Your task to perform on an android device: turn on airplane mode Image 0: 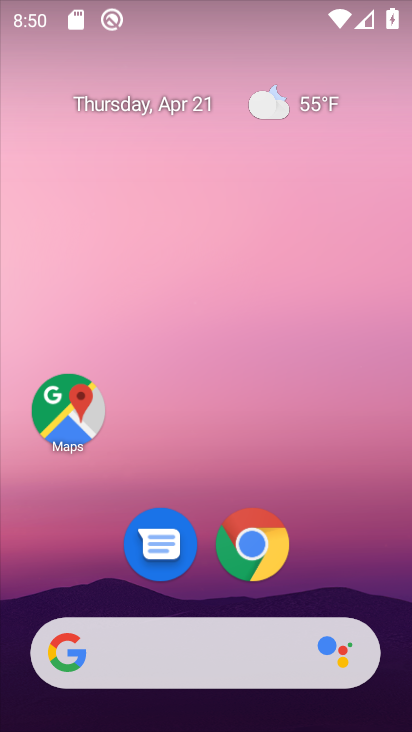
Step 0: drag from (204, 723) to (207, 97)
Your task to perform on an android device: turn on airplane mode Image 1: 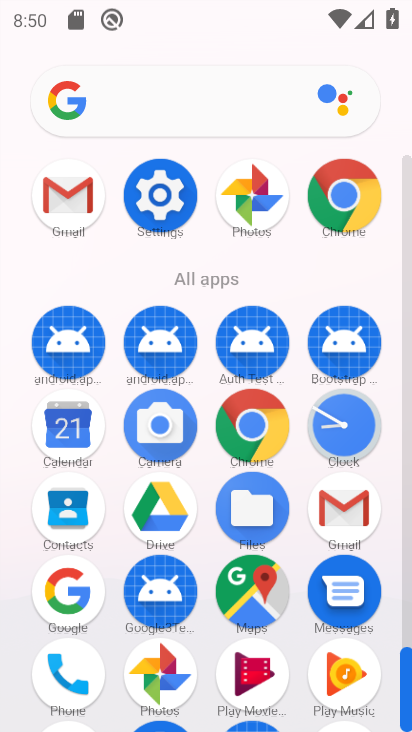
Step 1: click (158, 207)
Your task to perform on an android device: turn on airplane mode Image 2: 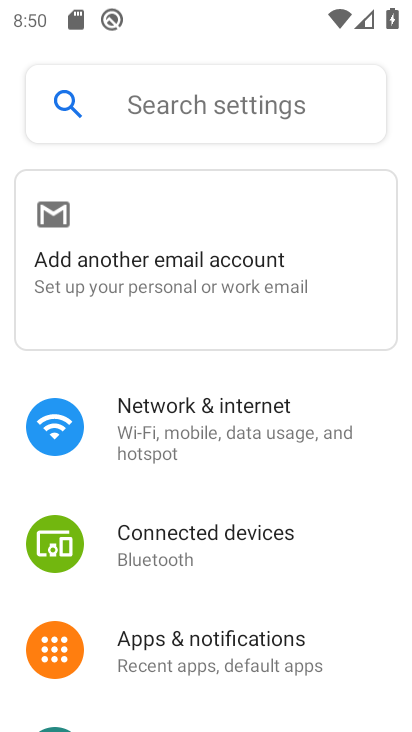
Step 2: click (171, 427)
Your task to perform on an android device: turn on airplane mode Image 3: 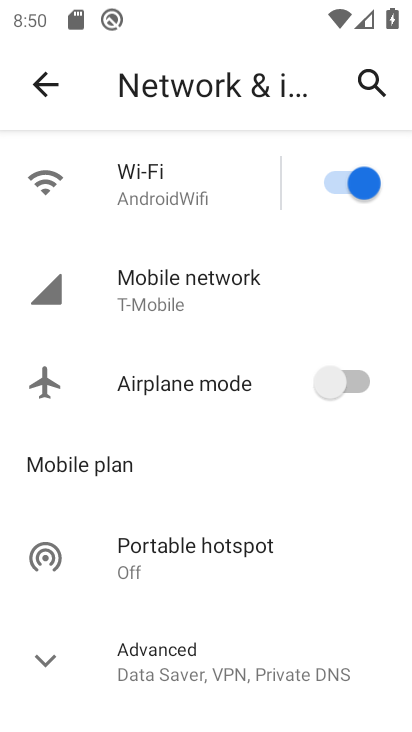
Step 3: click (359, 381)
Your task to perform on an android device: turn on airplane mode Image 4: 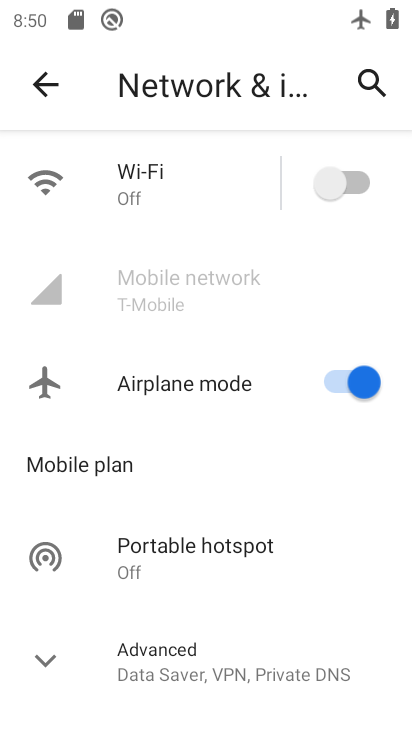
Step 4: task complete